Your task to perform on an android device: Open display settings Image 0: 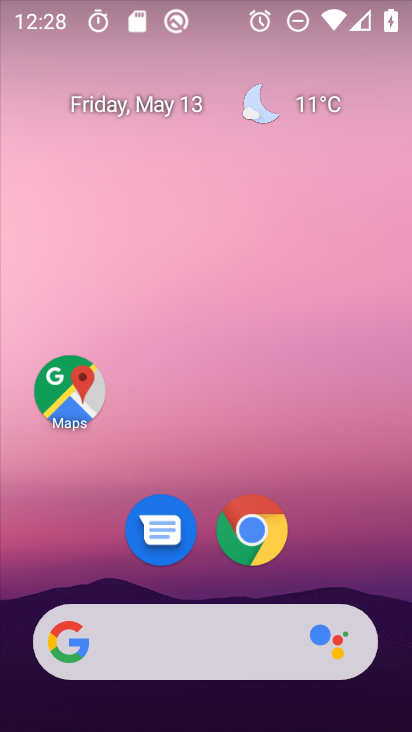
Step 0: press home button
Your task to perform on an android device: Open display settings Image 1: 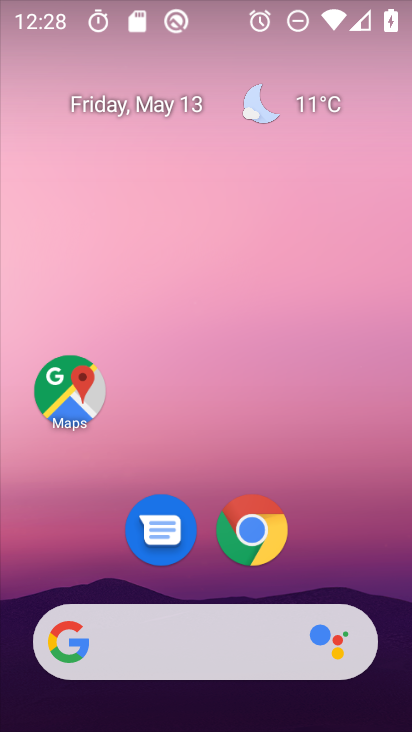
Step 1: drag from (128, 661) to (259, 177)
Your task to perform on an android device: Open display settings Image 2: 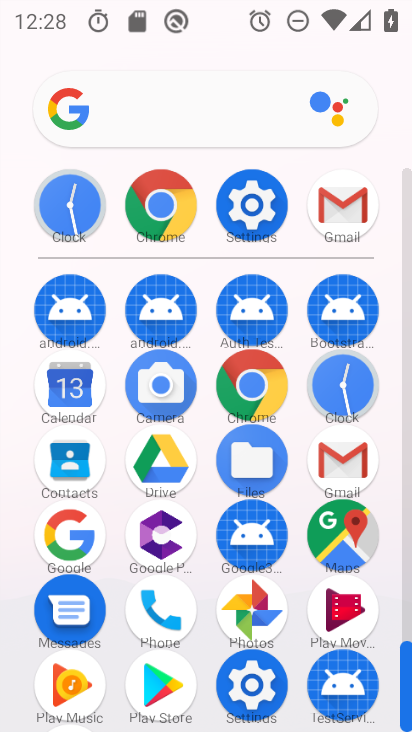
Step 2: click (263, 206)
Your task to perform on an android device: Open display settings Image 3: 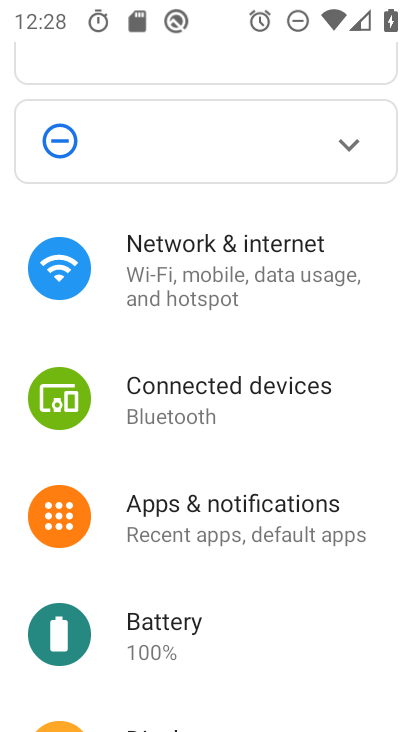
Step 3: drag from (256, 591) to (327, 170)
Your task to perform on an android device: Open display settings Image 4: 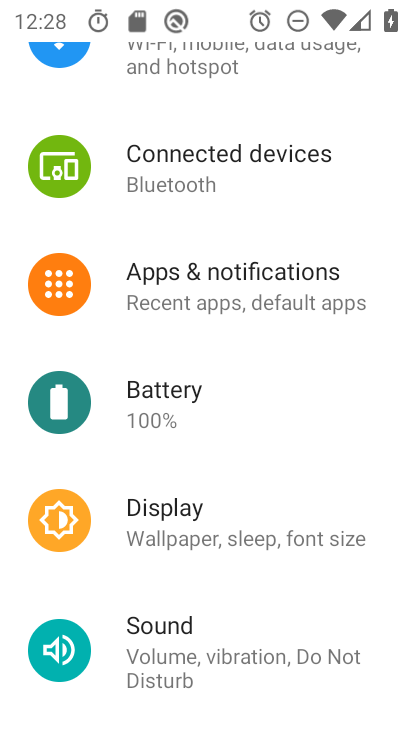
Step 4: click (197, 522)
Your task to perform on an android device: Open display settings Image 5: 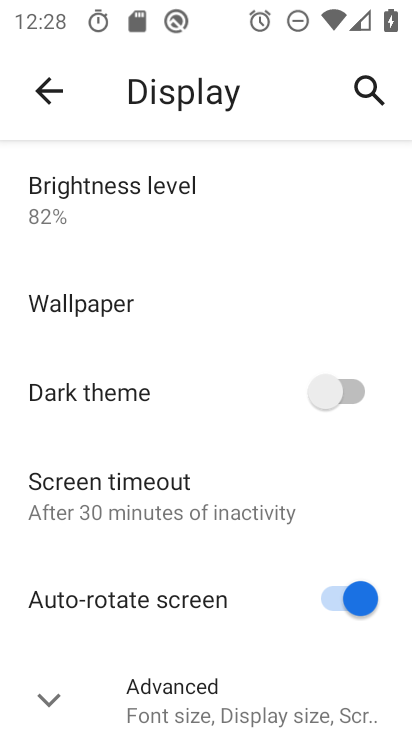
Step 5: task complete